Your task to perform on an android device: turn on javascript in the chrome app Image 0: 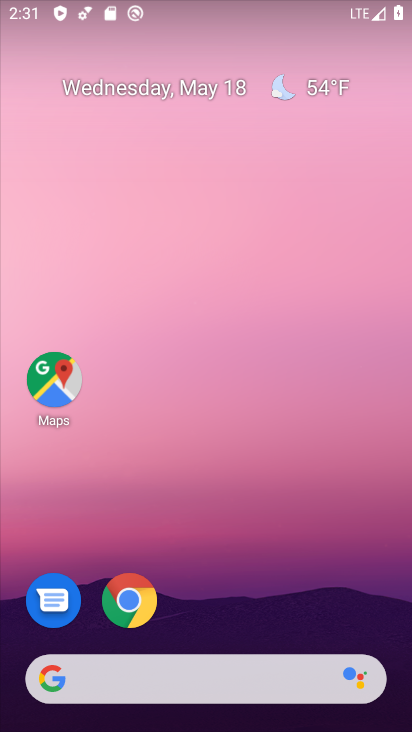
Step 0: click (132, 621)
Your task to perform on an android device: turn on javascript in the chrome app Image 1: 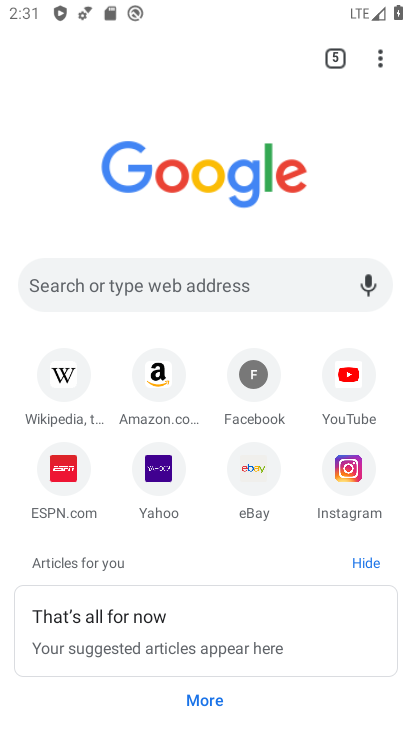
Step 1: drag from (377, 60) to (248, 489)
Your task to perform on an android device: turn on javascript in the chrome app Image 2: 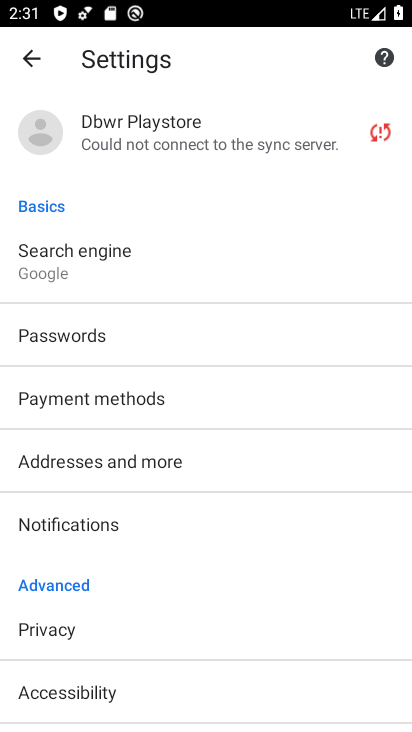
Step 2: drag from (134, 663) to (277, 253)
Your task to perform on an android device: turn on javascript in the chrome app Image 3: 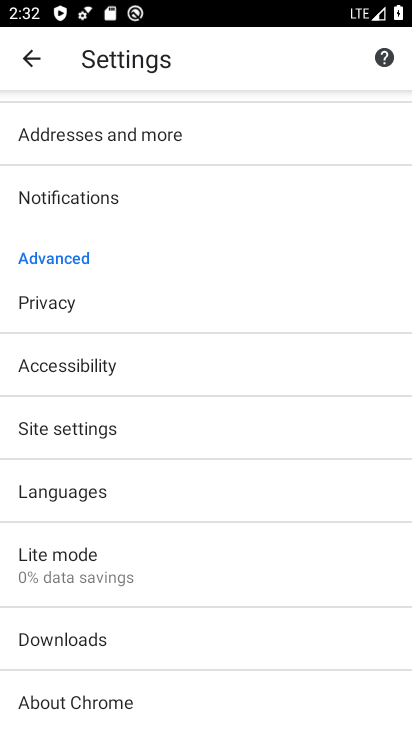
Step 3: click (94, 427)
Your task to perform on an android device: turn on javascript in the chrome app Image 4: 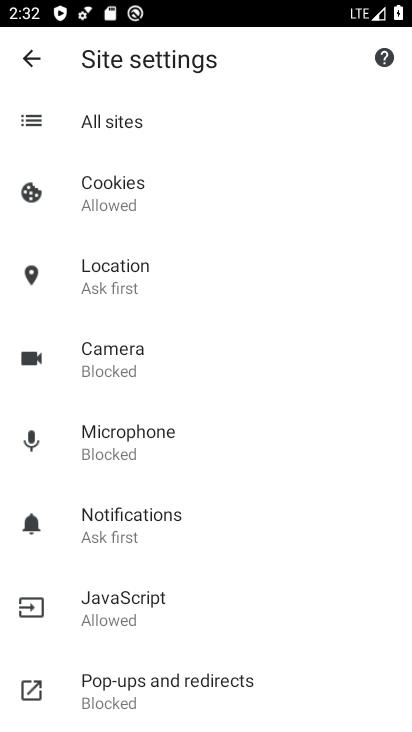
Step 4: click (128, 598)
Your task to perform on an android device: turn on javascript in the chrome app Image 5: 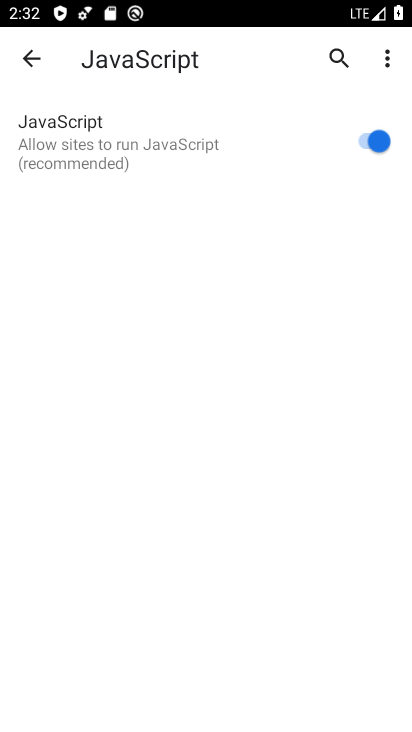
Step 5: task complete